Your task to perform on an android device: Open the map Image 0: 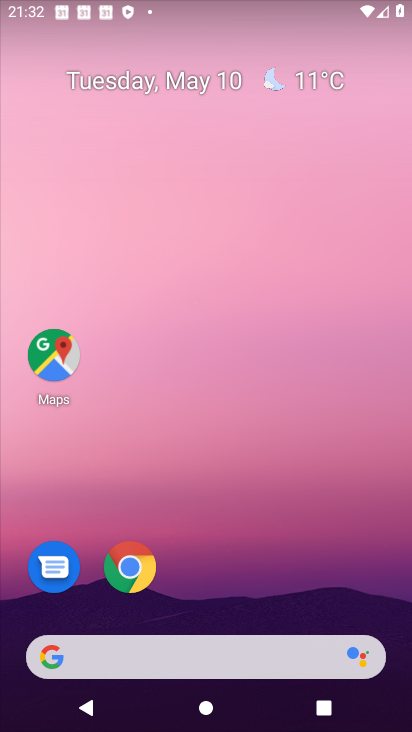
Step 0: click (61, 363)
Your task to perform on an android device: Open the map Image 1: 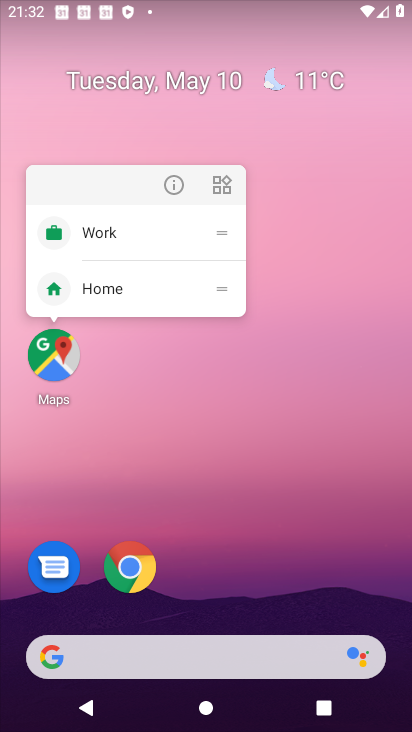
Step 1: click (61, 363)
Your task to perform on an android device: Open the map Image 2: 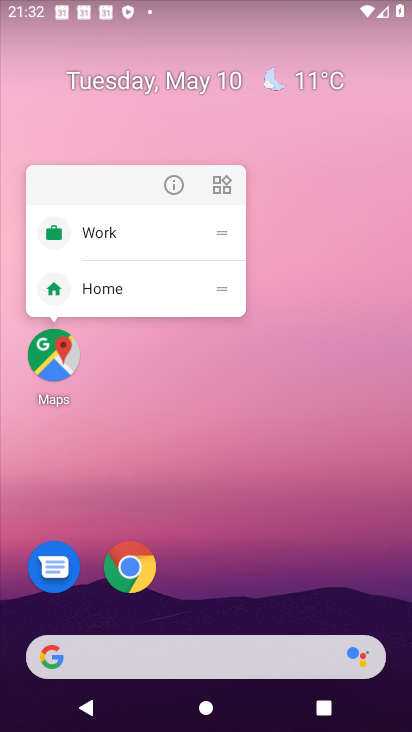
Step 2: click (43, 354)
Your task to perform on an android device: Open the map Image 3: 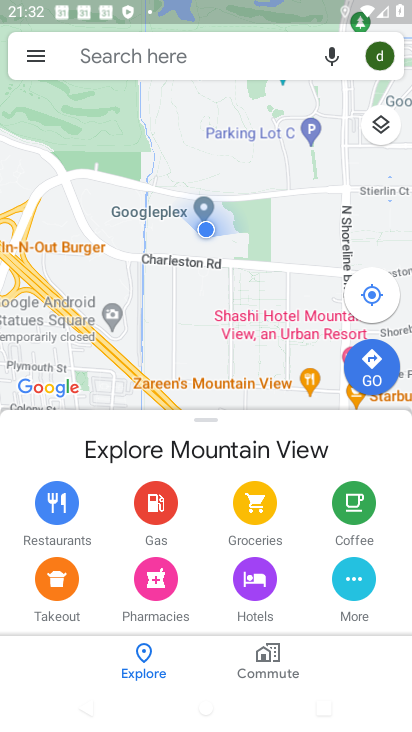
Step 3: task complete